Your task to perform on an android device: turn off airplane mode Image 0: 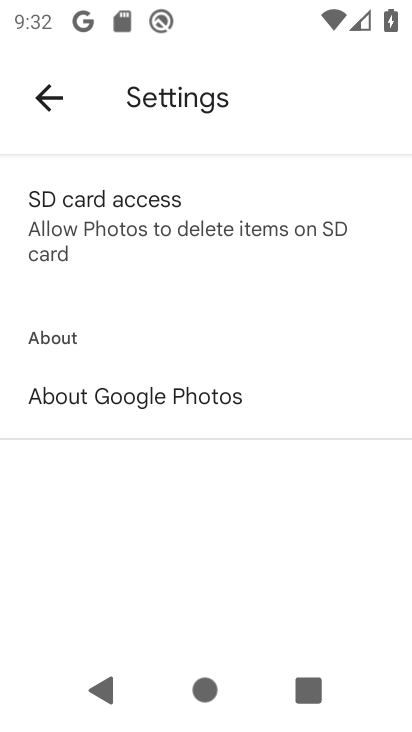
Step 0: press home button
Your task to perform on an android device: turn off airplane mode Image 1: 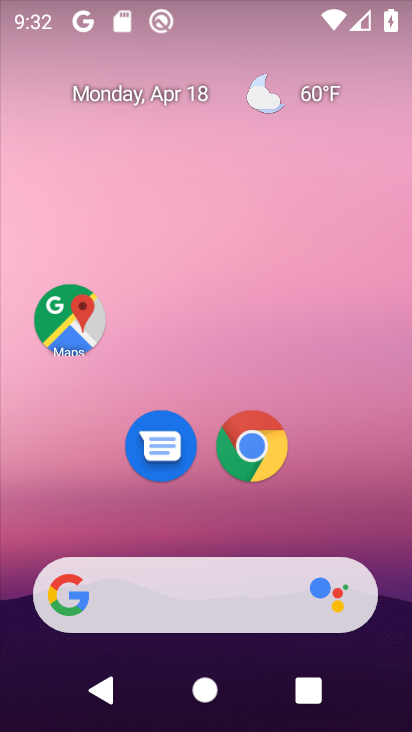
Step 1: drag from (377, 499) to (380, 137)
Your task to perform on an android device: turn off airplane mode Image 2: 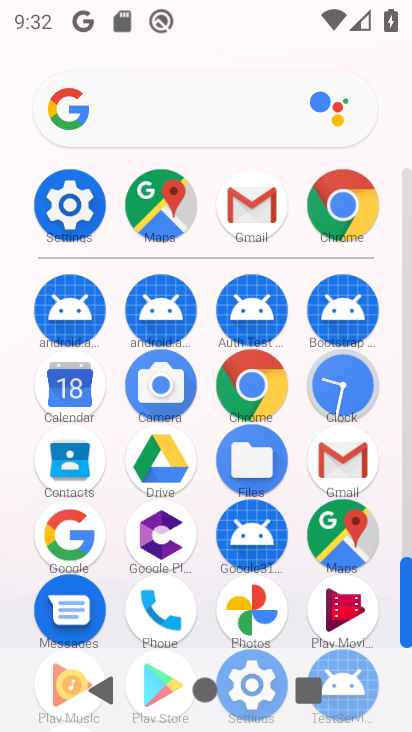
Step 2: click (76, 209)
Your task to perform on an android device: turn off airplane mode Image 3: 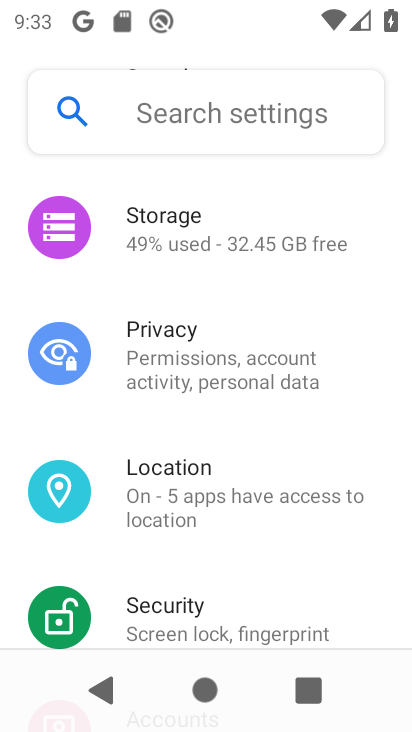
Step 3: drag from (382, 310) to (382, 452)
Your task to perform on an android device: turn off airplane mode Image 4: 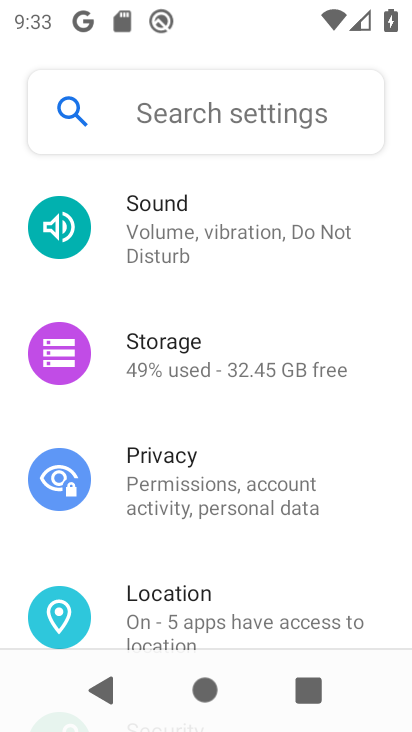
Step 4: drag from (381, 289) to (378, 458)
Your task to perform on an android device: turn off airplane mode Image 5: 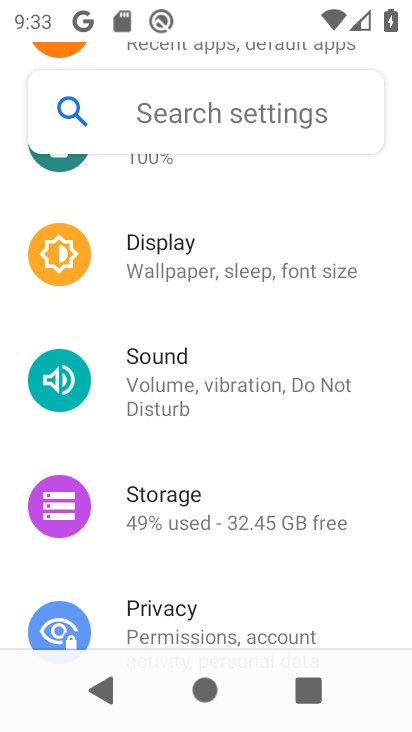
Step 5: drag from (381, 233) to (382, 429)
Your task to perform on an android device: turn off airplane mode Image 6: 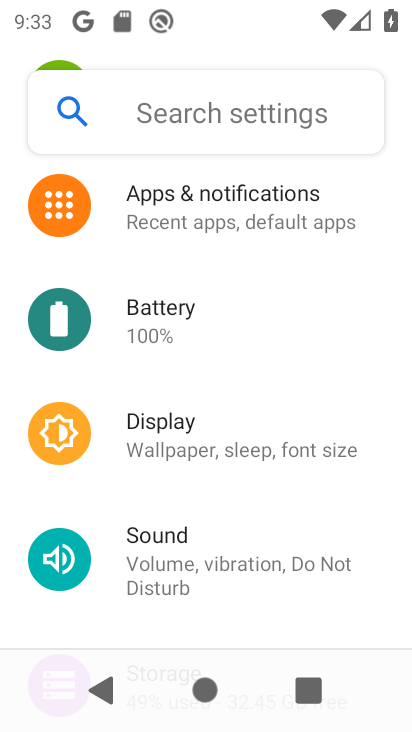
Step 6: drag from (375, 239) to (378, 427)
Your task to perform on an android device: turn off airplane mode Image 7: 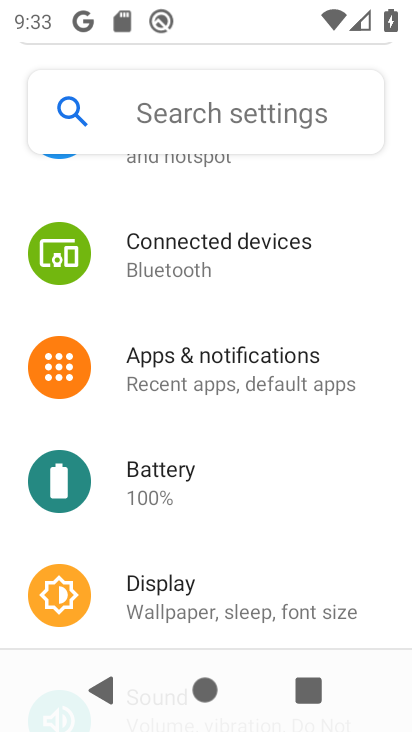
Step 7: drag from (387, 232) to (384, 456)
Your task to perform on an android device: turn off airplane mode Image 8: 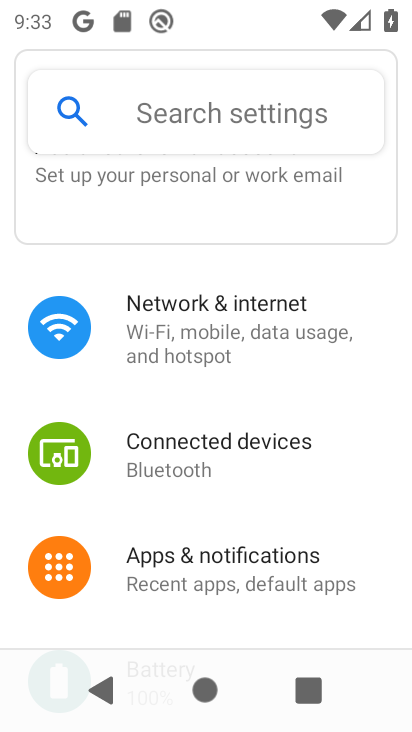
Step 8: click (279, 318)
Your task to perform on an android device: turn off airplane mode Image 9: 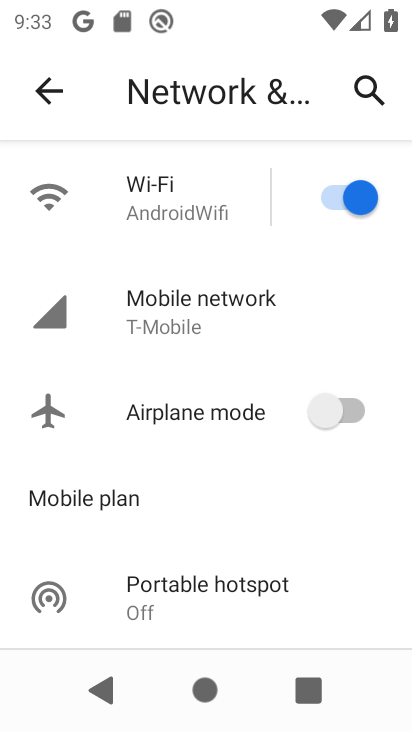
Step 9: task complete